Your task to perform on an android device: make emails show in primary in the gmail app Image 0: 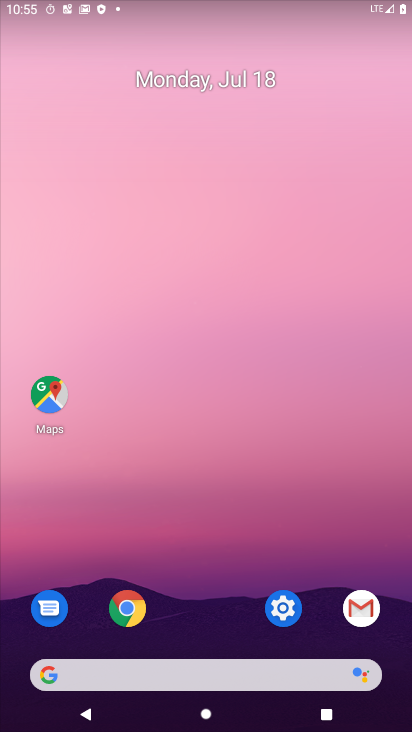
Step 0: click (368, 622)
Your task to perform on an android device: make emails show in primary in the gmail app Image 1: 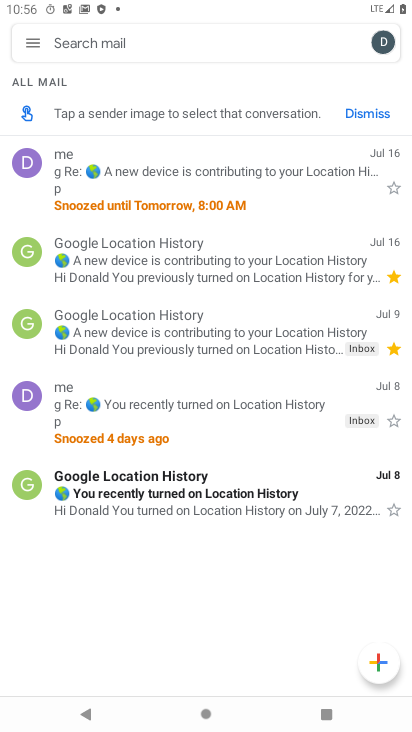
Step 1: task complete